Your task to perform on an android device: turn off airplane mode Image 0: 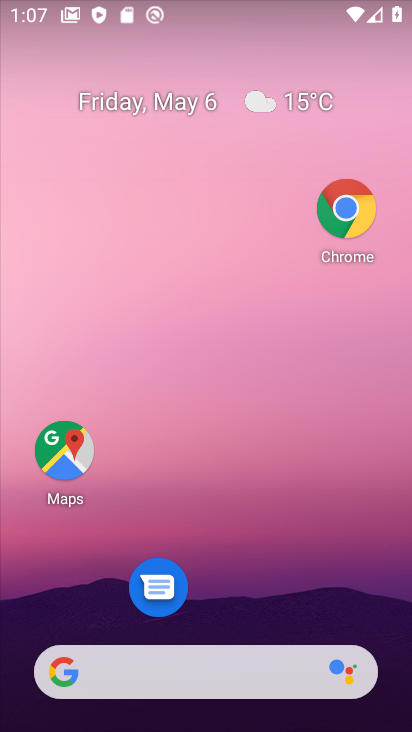
Step 0: drag from (269, 611) to (344, 73)
Your task to perform on an android device: turn off airplane mode Image 1: 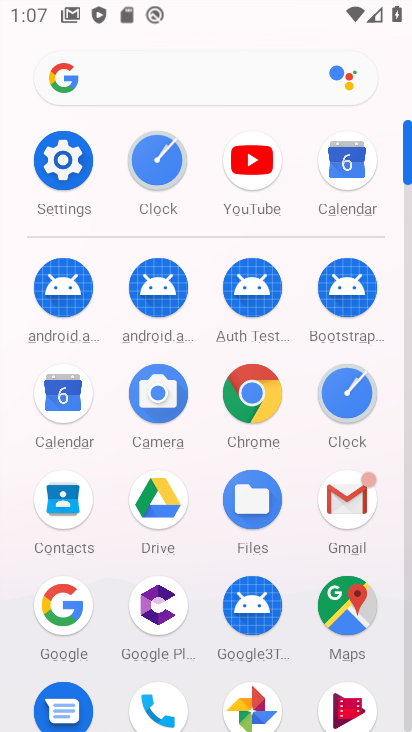
Step 1: click (69, 163)
Your task to perform on an android device: turn off airplane mode Image 2: 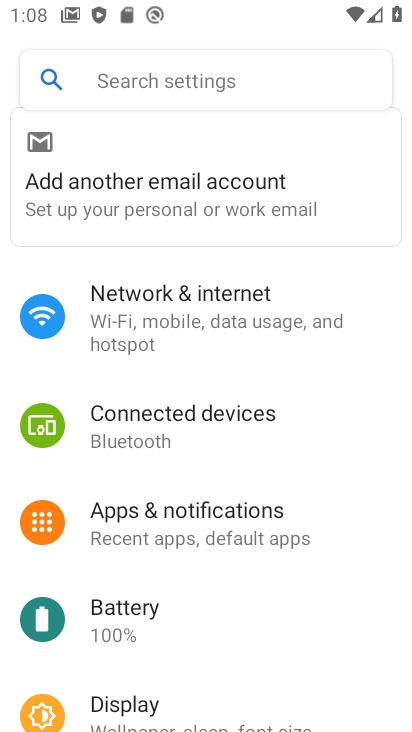
Step 2: click (202, 318)
Your task to perform on an android device: turn off airplane mode Image 3: 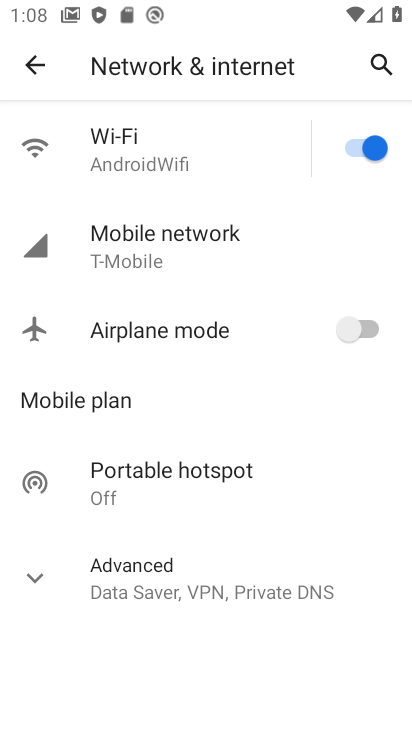
Step 3: task complete